Your task to perform on an android device: Go to Amazon Image 0: 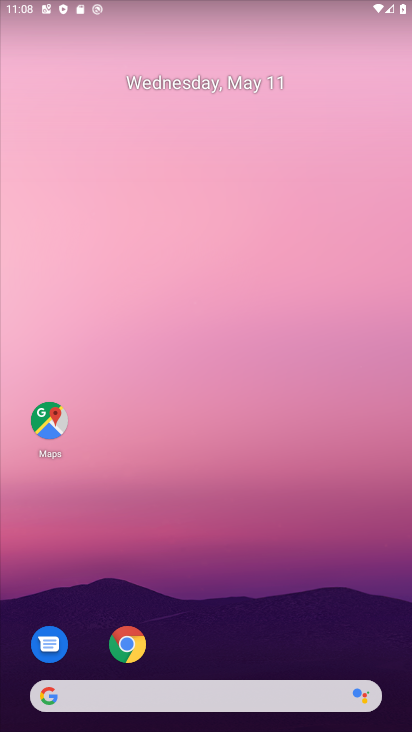
Step 0: drag from (278, 631) to (131, 125)
Your task to perform on an android device: Go to Amazon Image 1: 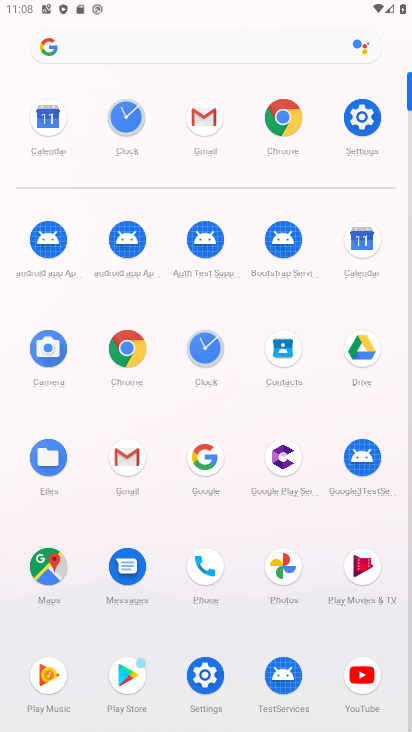
Step 1: click (274, 125)
Your task to perform on an android device: Go to Amazon Image 2: 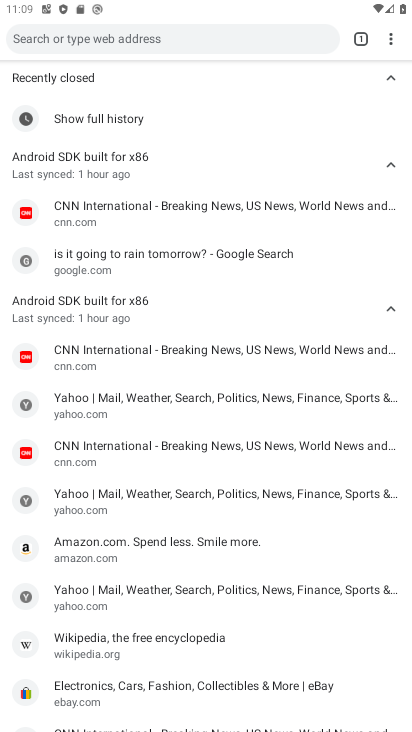
Step 2: click (389, 44)
Your task to perform on an android device: Go to Amazon Image 3: 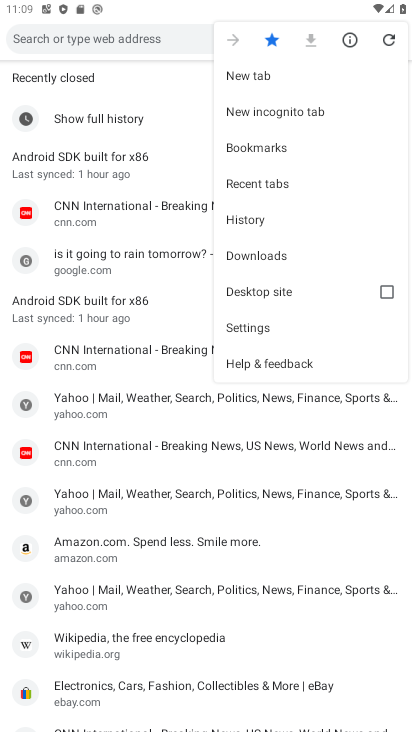
Step 3: click (166, 34)
Your task to perform on an android device: Go to Amazon Image 4: 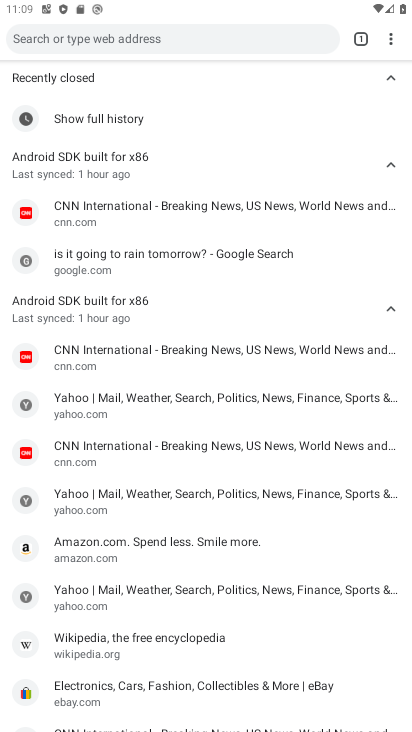
Step 4: click (352, 43)
Your task to perform on an android device: Go to Amazon Image 5: 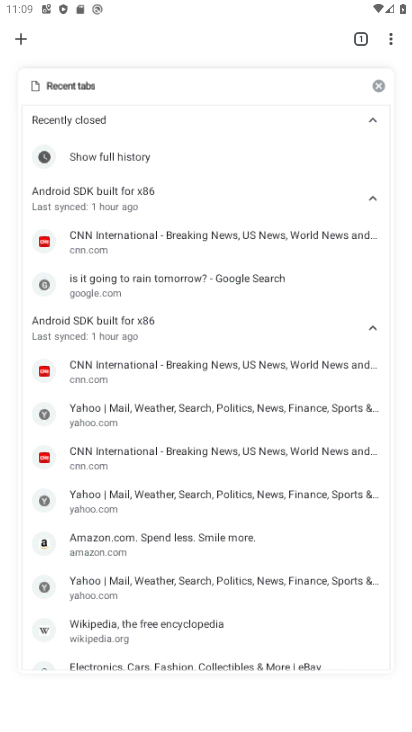
Step 5: click (356, 39)
Your task to perform on an android device: Go to Amazon Image 6: 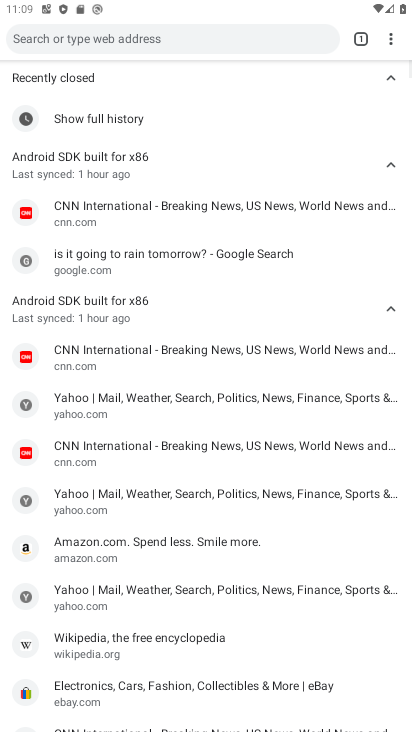
Step 6: click (361, 44)
Your task to perform on an android device: Go to Amazon Image 7: 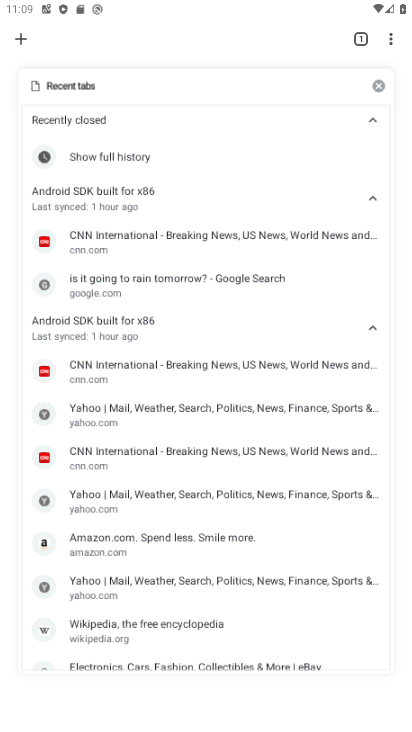
Step 7: click (11, 27)
Your task to perform on an android device: Go to Amazon Image 8: 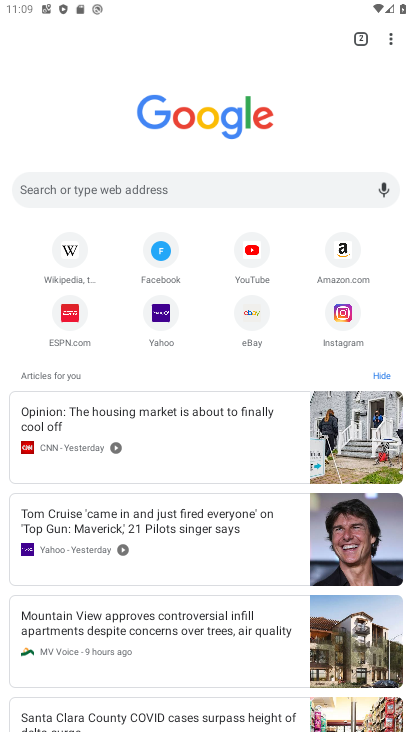
Step 8: click (355, 267)
Your task to perform on an android device: Go to Amazon Image 9: 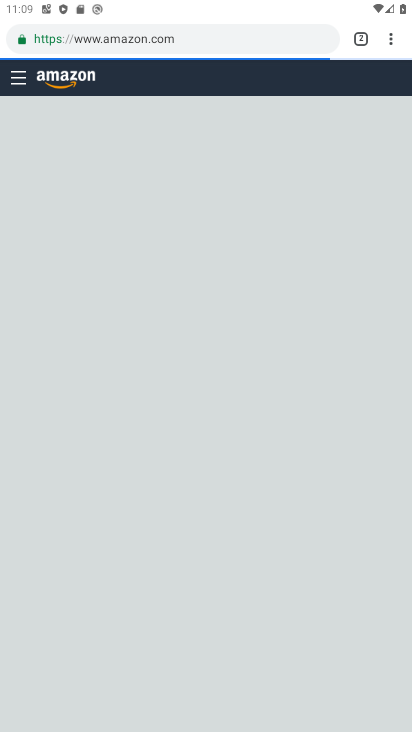
Step 9: task complete